Your task to perform on an android device: find which apps use the phone's location Image 0: 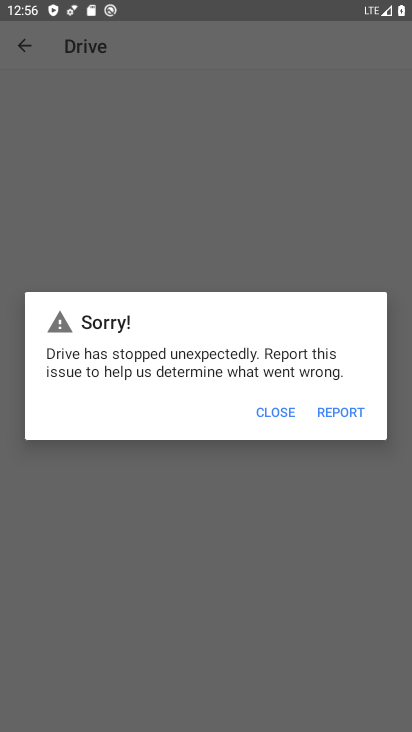
Step 0: press home button
Your task to perform on an android device: find which apps use the phone's location Image 1: 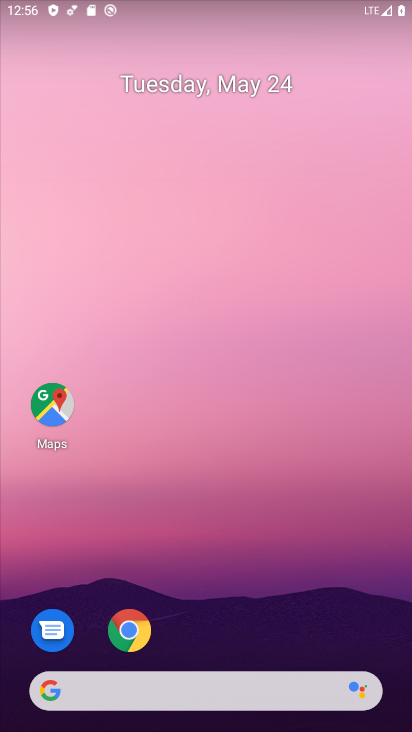
Step 1: drag from (301, 585) to (338, 163)
Your task to perform on an android device: find which apps use the phone's location Image 2: 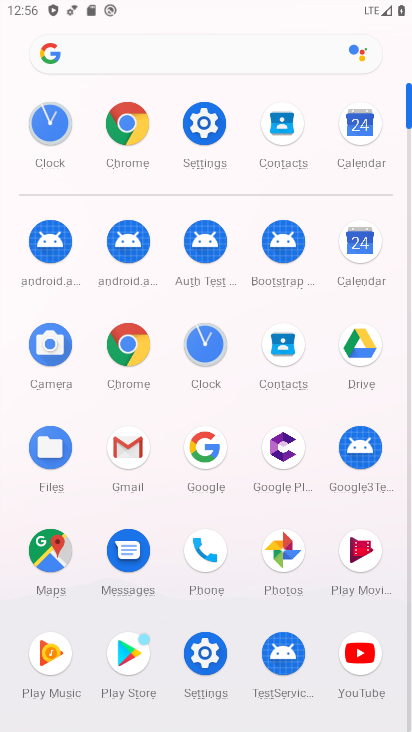
Step 2: click (198, 663)
Your task to perform on an android device: find which apps use the phone's location Image 3: 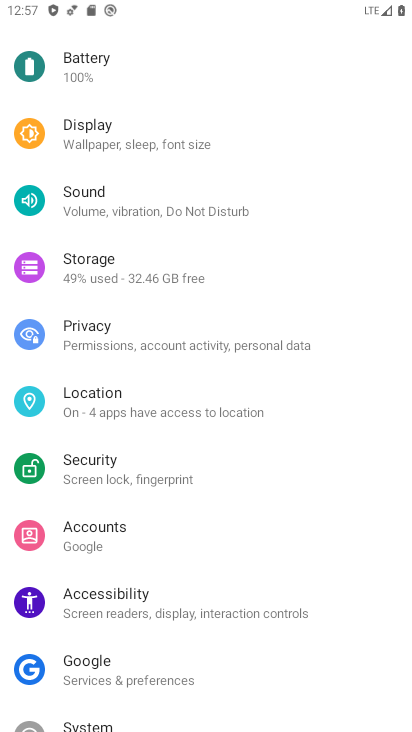
Step 3: click (150, 405)
Your task to perform on an android device: find which apps use the phone's location Image 4: 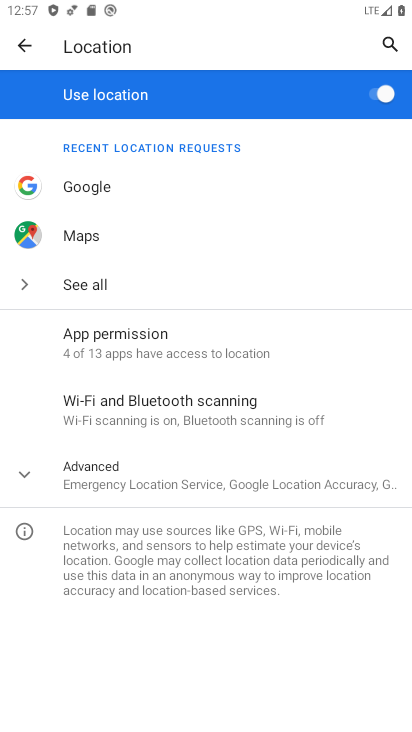
Step 4: click (220, 353)
Your task to perform on an android device: find which apps use the phone's location Image 5: 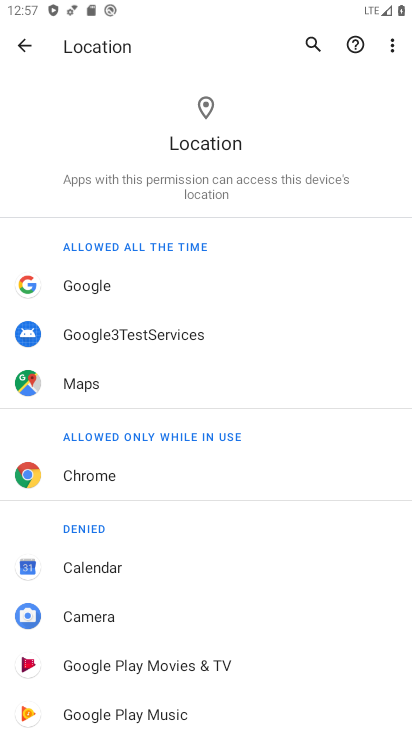
Step 5: task complete